Your task to perform on an android device: Do I have any events this weekend? Image 0: 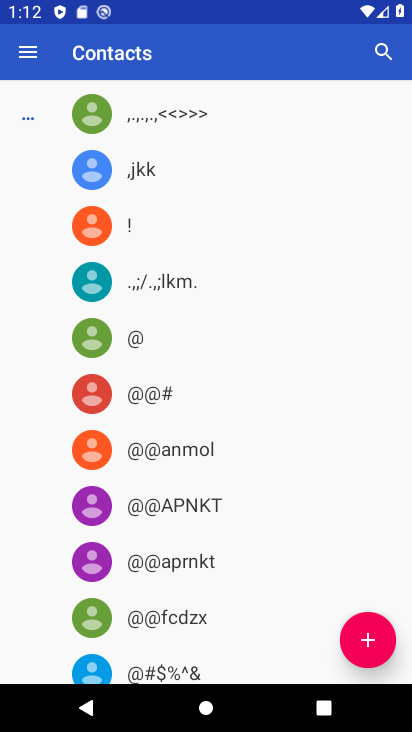
Step 0: press home button
Your task to perform on an android device: Do I have any events this weekend? Image 1: 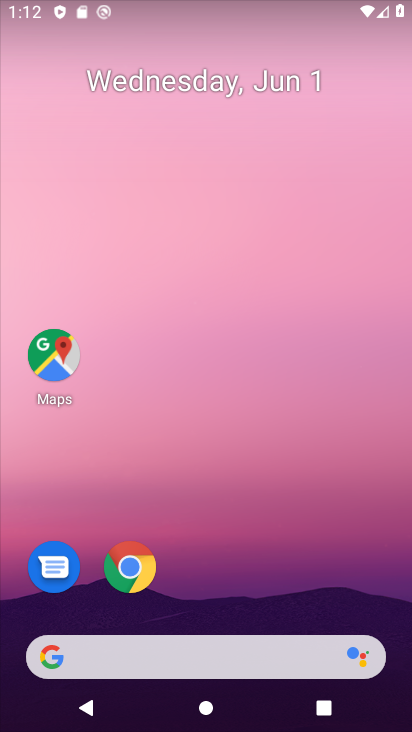
Step 1: drag from (237, 639) to (322, 85)
Your task to perform on an android device: Do I have any events this weekend? Image 2: 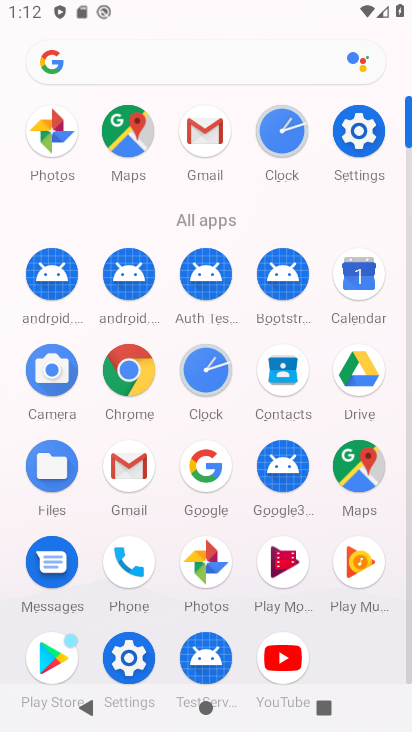
Step 2: click (362, 270)
Your task to perform on an android device: Do I have any events this weekend? Image 3: 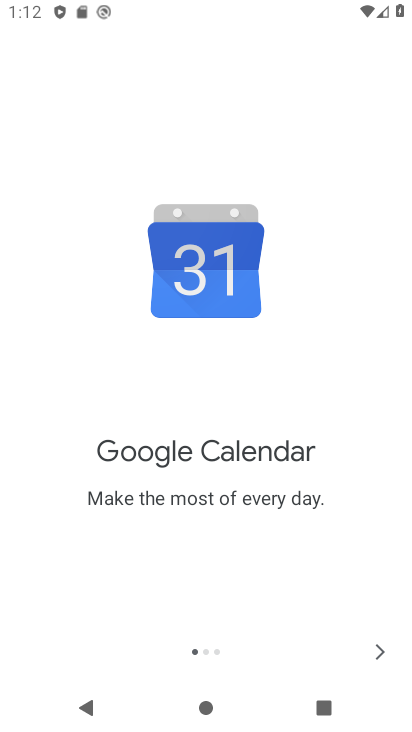
Step 3: click (373, 651)
Your task to perform on an android device: Do I have any events this weekend? Image 4: 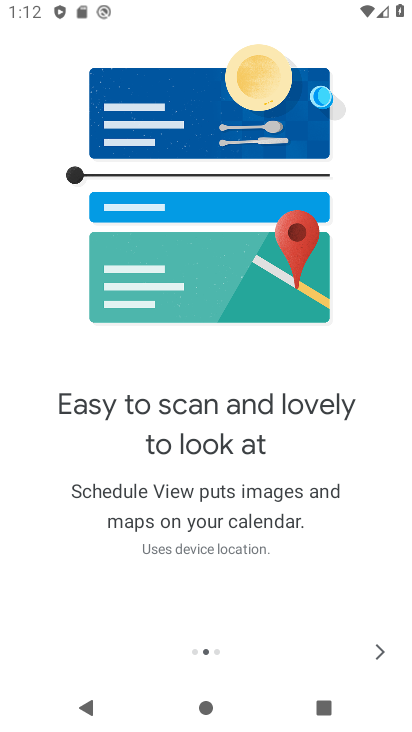
Step 4: click (373, 651)
Your task to perform on an android device: Do I have any events this weekend? Image 5: 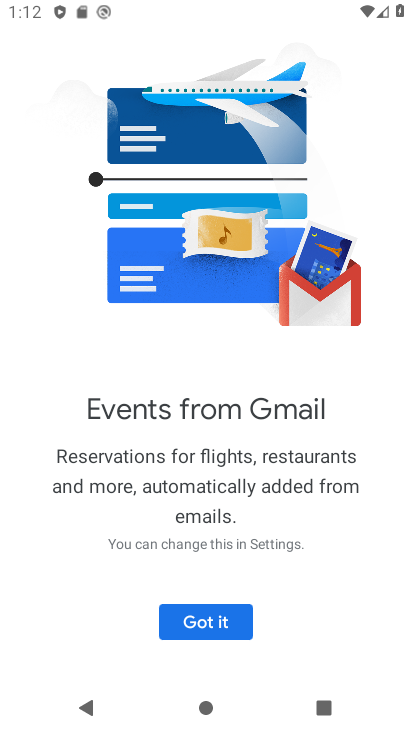
Step 5: click (225, 633)
Your task to perform on an android device: Do I have any events this weekend? Image 6: 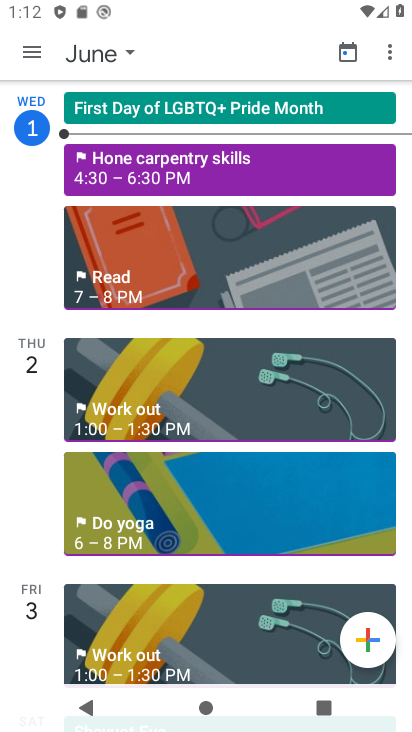
Step 6: click (27, 43)
Your task to perform on an android device: Do I have any events this weekend? Image 7: 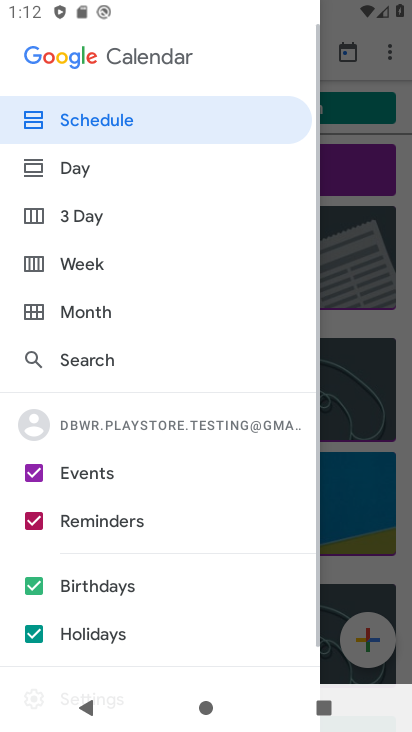
Step 7: click (91, 262)
Your task to perform on an android device: Do I have any events this weekend? Image 8: 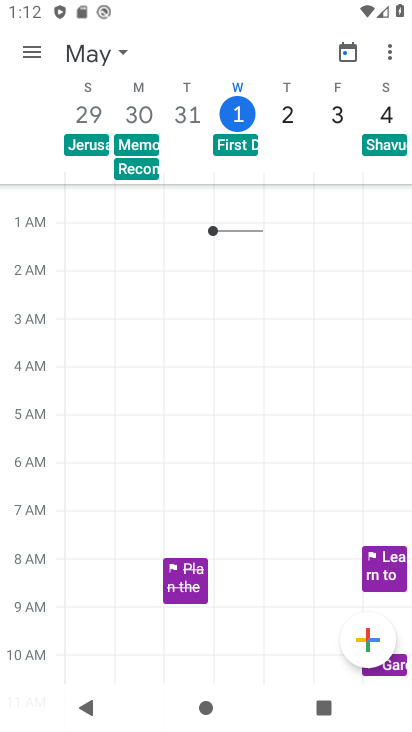
Step 8: task complete